Your task to perform on an android device: toggle notification dots Image 0: 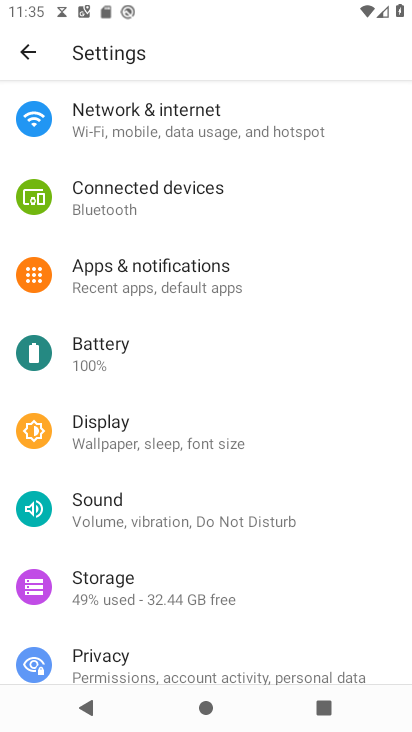
Step 0: click (81, 305)
Your task to perform on an android device: toggle notification dots Image 1: 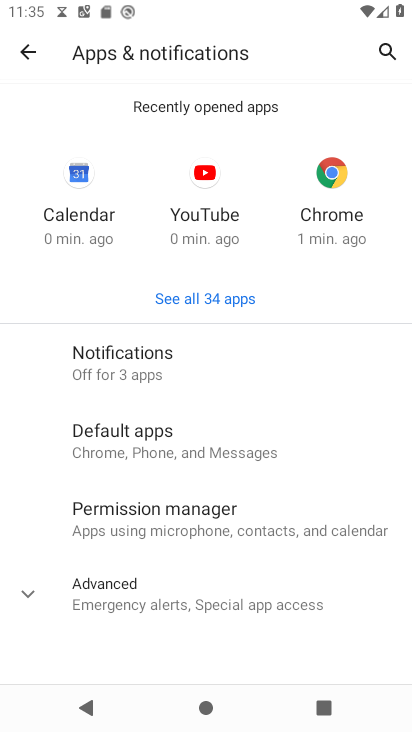
Step 1: click (221, 359)
Your task to perform on an android device: toggle notification dots Image 2: 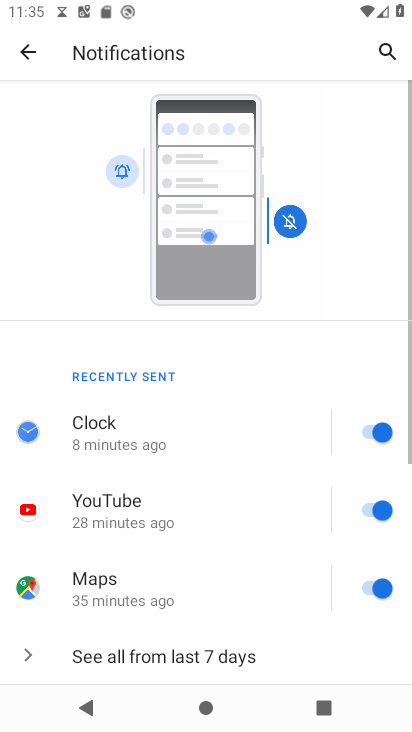
Step 2: drag from (150, 612) to (215, 202)
Your task to perform on an android device: toggle notification dots Image 3: 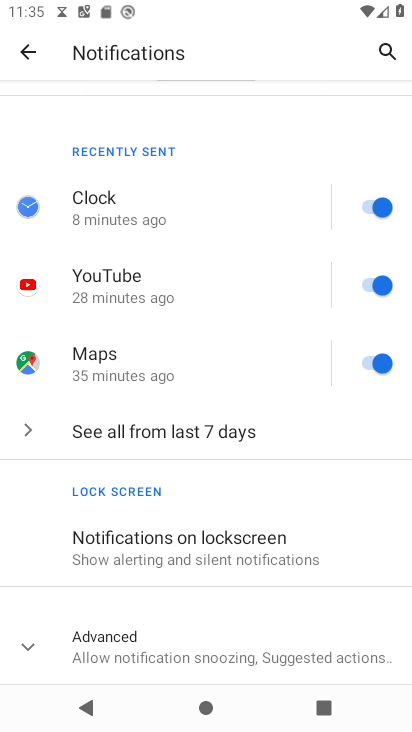
Step 3: click (155, 655)
Your task to perform on an android device: toggle notification dots Image 4: 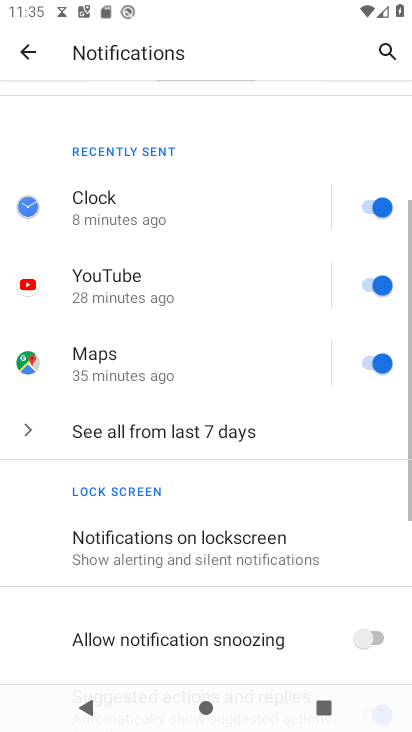
Step 4: drag from (154, 635) to (162, 292)
Your task to perform on an android device: toggle notification dots Image 5: 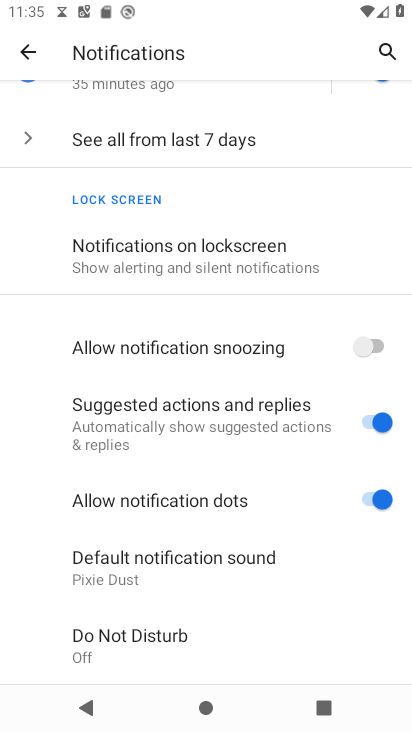
Step 5: drag from (178, 575) to (192, 286)
Your task to perform on an android device: toggle notification dots Image 6: 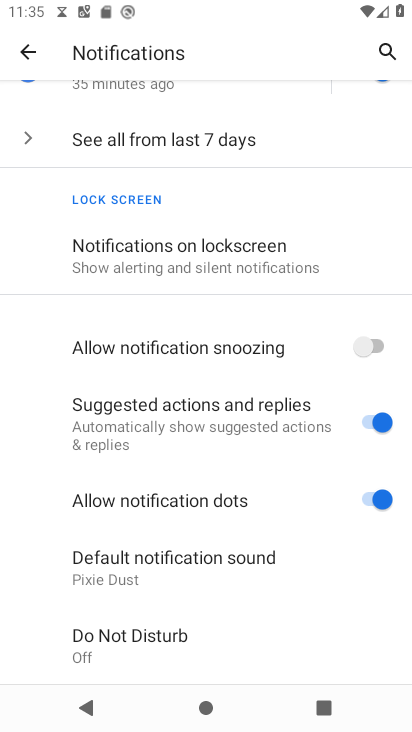
Step 6: click (386, 500)
Your task to perform on an android device: toggle notification dots Image 7: 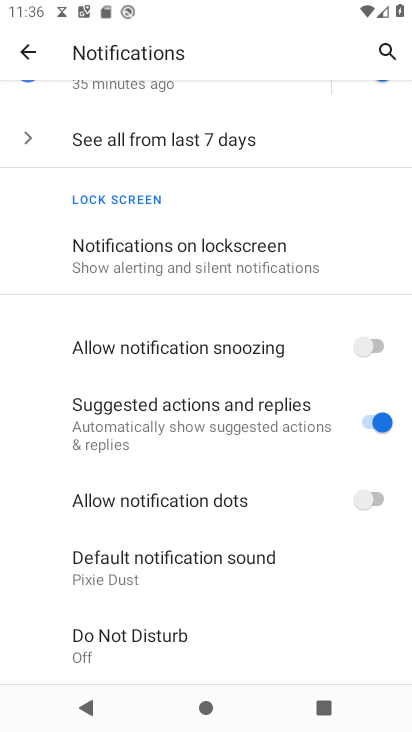
Step 7: task complete